Your task to perform on an android device: Open Chrome and go to the settings page Image 0: 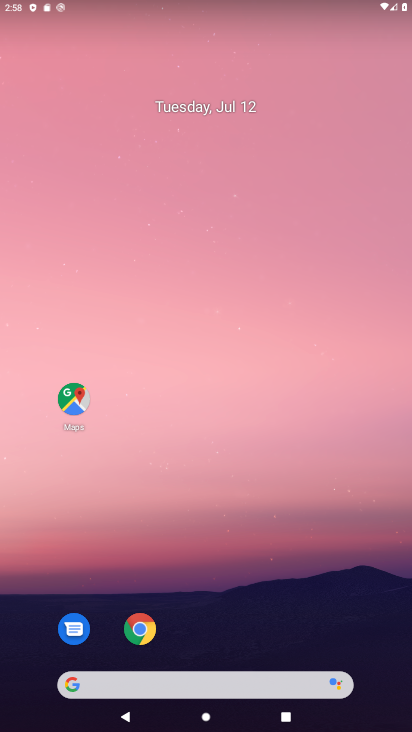
Step 0: click (135, 624)
Your task to perform on an android device: Open Chrome and go to the settings page Image 1: 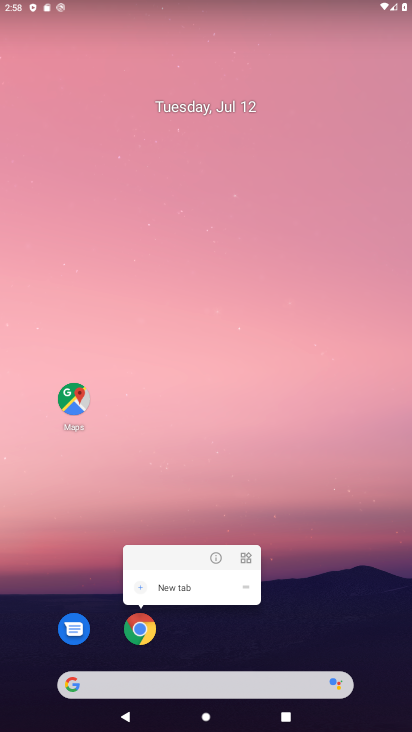
Step 1: click (149, 635)
Your task to perform on an android device: Open Chrome and go to the settings page Image 2: 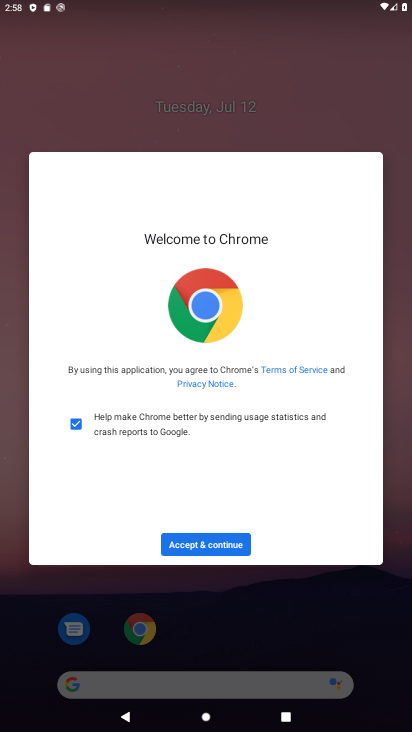
Step 2: click (206, 552)
Your task to perform on an android device: Open Chrome and go to the settings page Image 3: 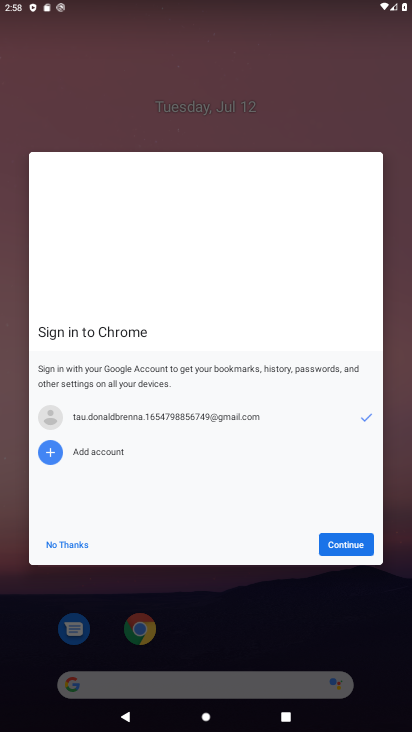
Step 3: click (351, 537)
Your task to perform on an android device: Open Chrome and go to the settings page Image 4: 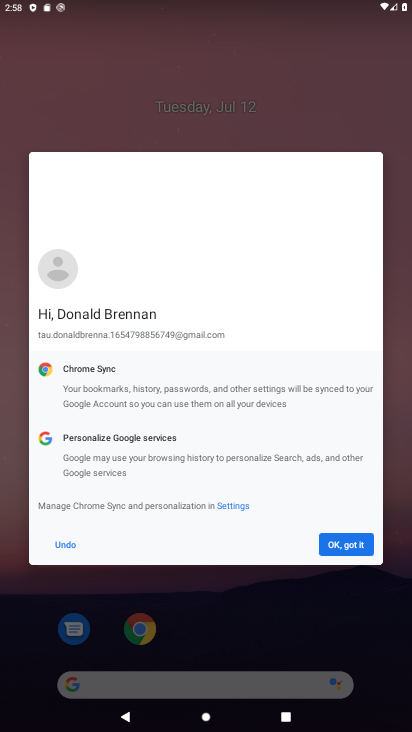
Step 4: click (351, 537)
Your task to perform on an android device: Open Chrome and go to the settings page Image 5: 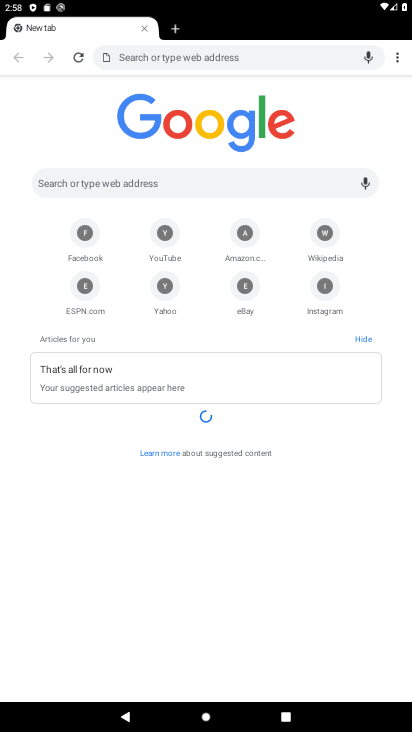
Step 5: click (398, 55)
Your task to perform on an android device: Open Chrome and go to the settings page Image 6: 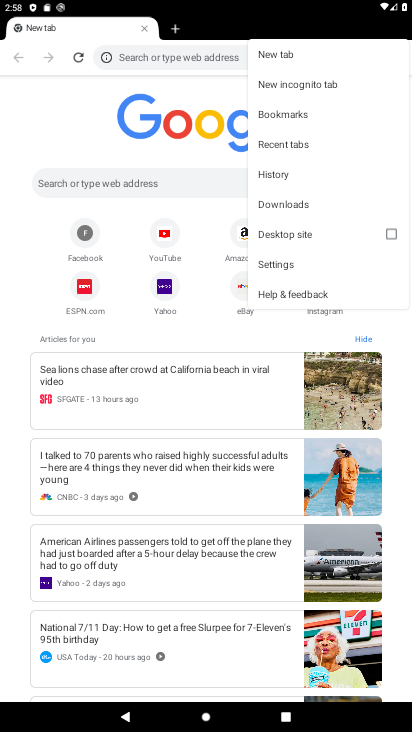
Step 6: click (292, 265)
Your task to perform on an android device: Open Chrome and go to the settings page Image 7: 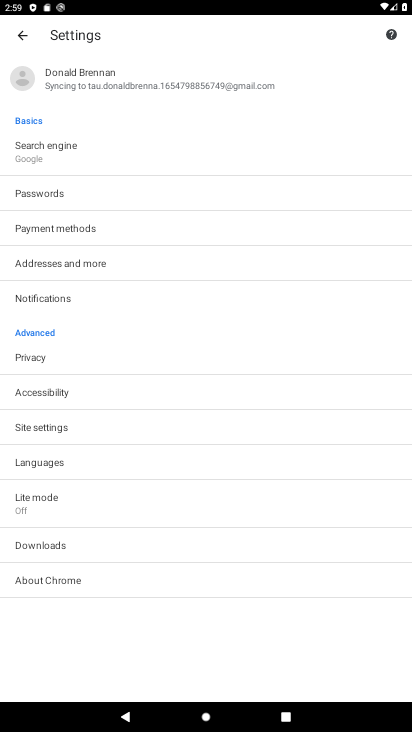
Step 7: task complete